Your task to perform on an android device: Do I have any events today? Image 0: 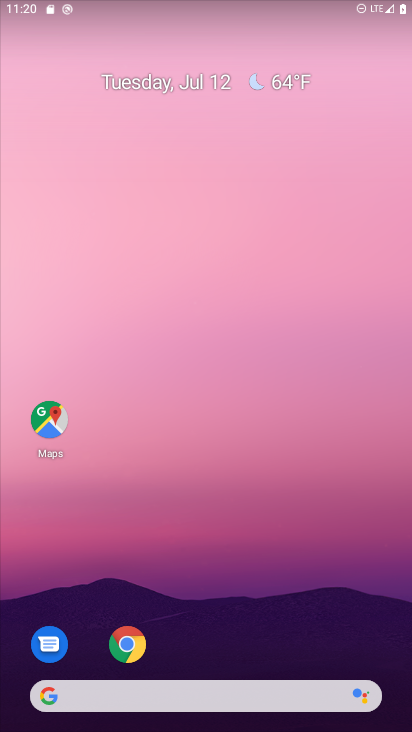
Step 0: drag from (252, 653) to (216, 166)
Your task to perform on an android device: Do I have any events today? Image 1: 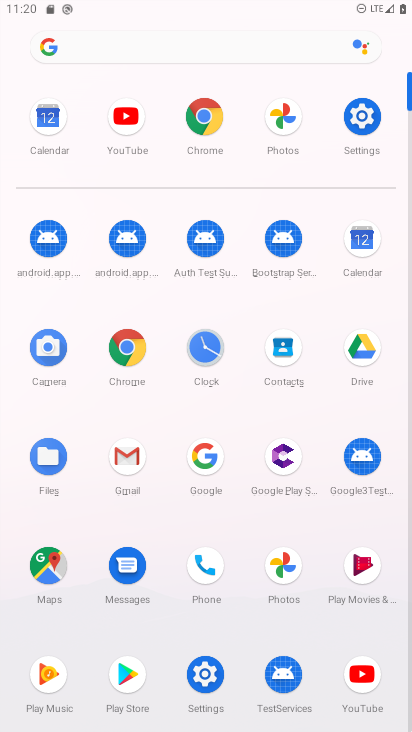
Step 1: click (352, 253)
Your task to perform on an android device: Do I have any events today? Image 2: 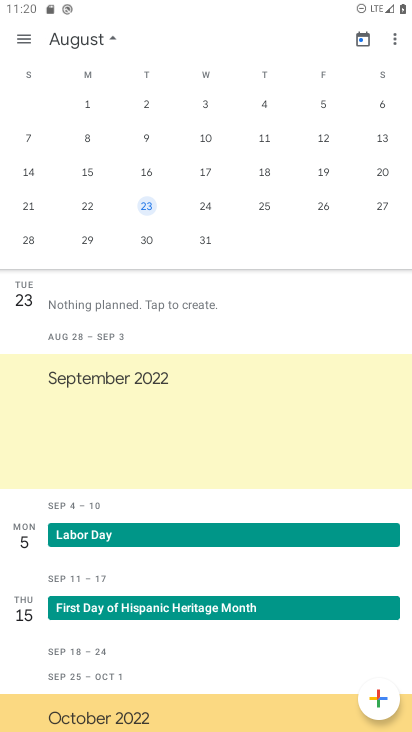
Step 2: task complete